Your task to perform on an android device: Open settings Image 0: 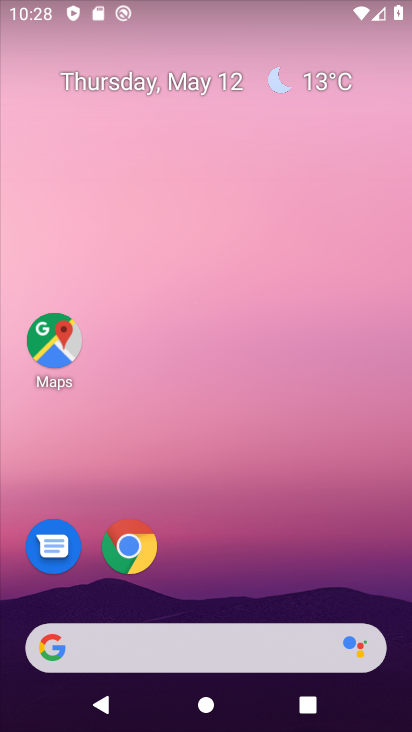
Step 0: drag from (281, 667) to (319, 281)
Your task to perform on an android device: Open settings Image 1: 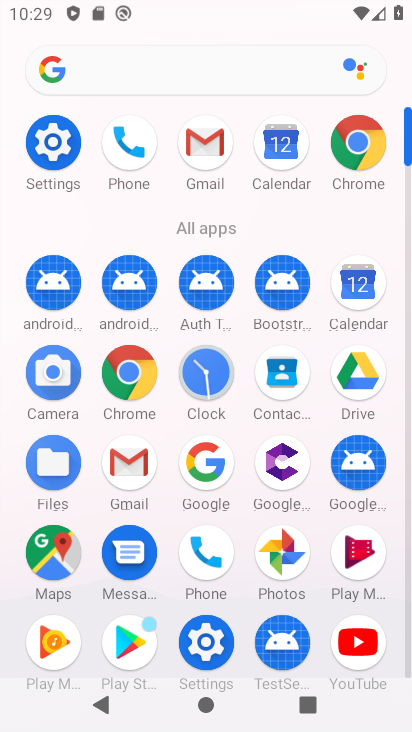
Step 1: click (55, 143)
Your task to perform on an android device: Open settings Image 2: 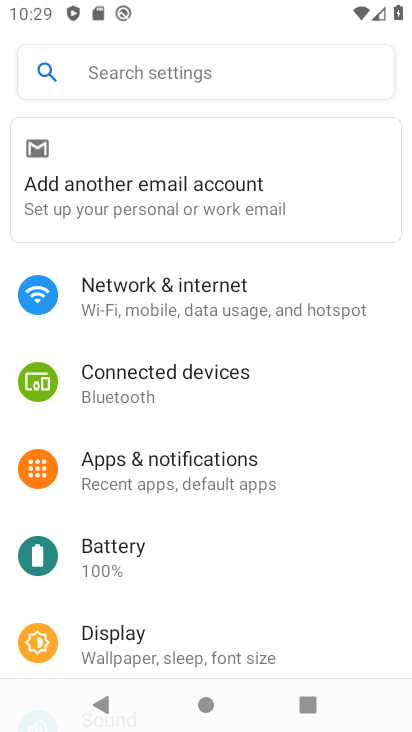
Step 2: task complete